Your task to perform on an android device: change the clock display to show seconds Image 0: 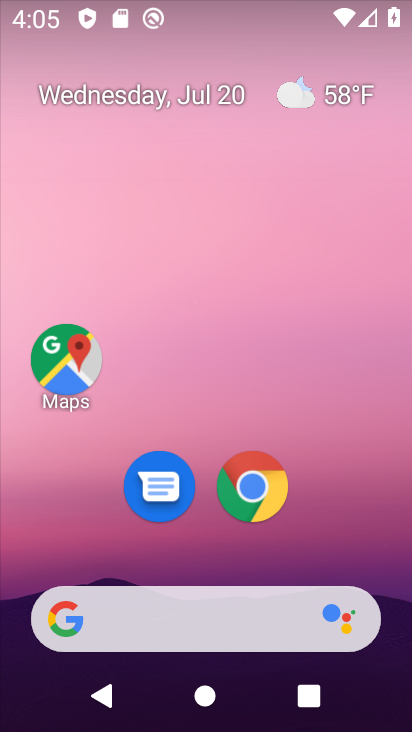
Step 0: drag from (171, 478) to (213, 9)
Your task to perform on an android device: change the clock display to show seconds Image 1: 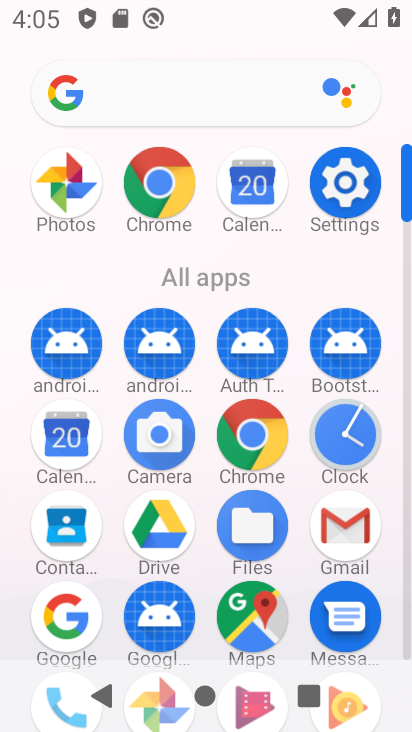
Step 1: click (334, 432)
Your task to perform on an android device: change the clock display to show seconds Image 2: 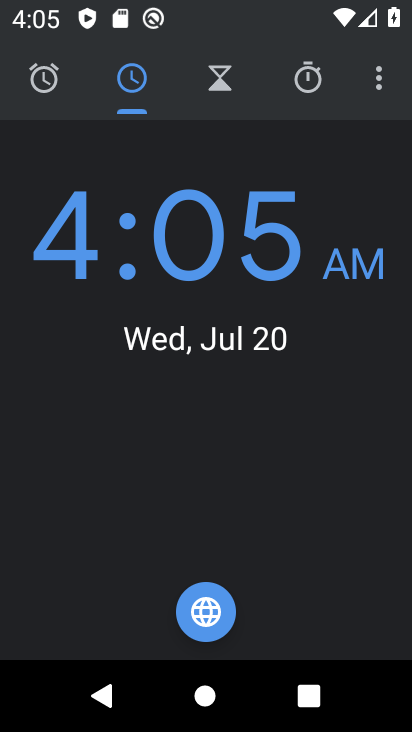
Step 2: click (375, 78)
Your task to perform on an android device: change the clock display to show seconds Image 3: 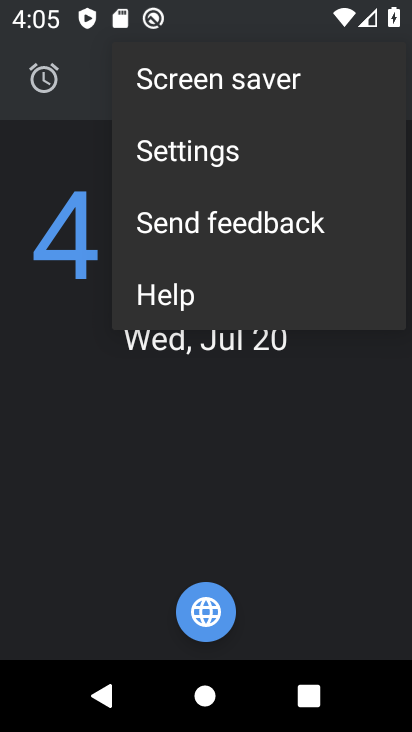
Step 3: click (223, 142)
Your task to perform on an android device: change the clock display to show seconds Image 4: 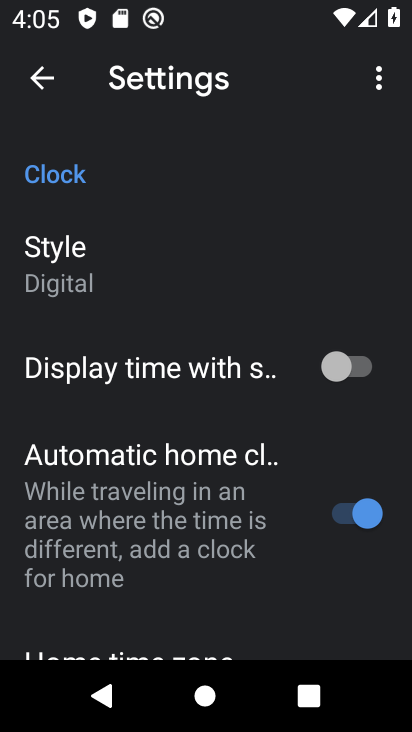
Step 4: click (353, 373)
Your task to perform on an android device: change the clock display to show seconds Image 5: 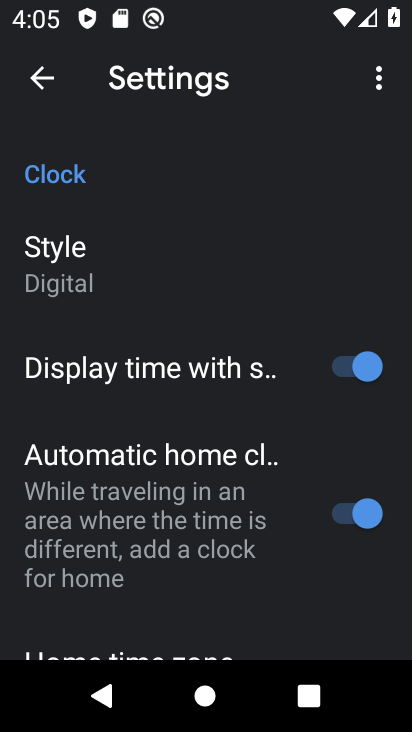
Step 5: task complete